Your task to perform on an android device: turn off picture-in-picture Image 0: 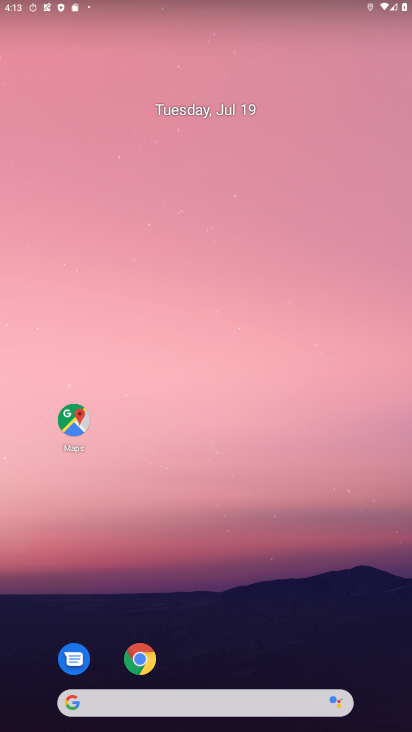
Step 0: drag from (233, 547) to (290, 8)
Your task to perform on an android device: turn off picture-in-picture Image 1: 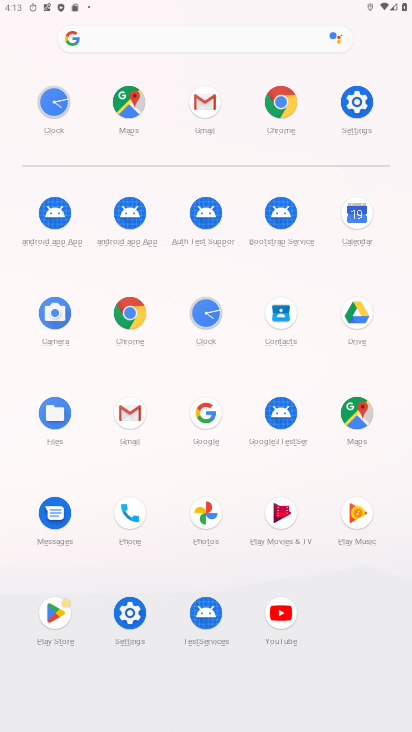
Step 1: click (284, 106)
Your task to perform on an android device: turn off picture-in-picture Image 2: 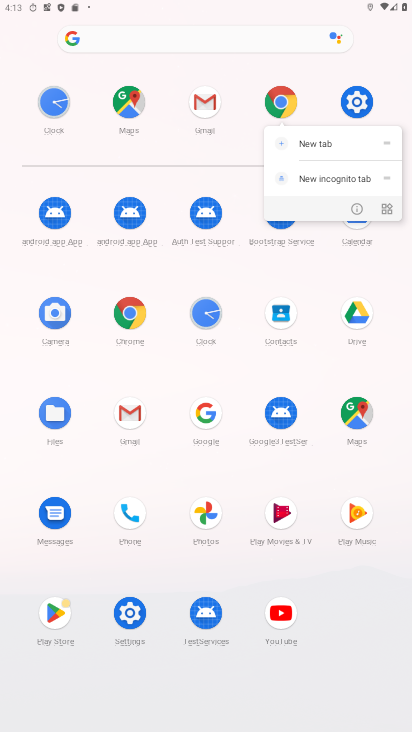
Step 2: click (356, 210)
Your task to perform on an android device: turn off picture-in-picture Image 3: 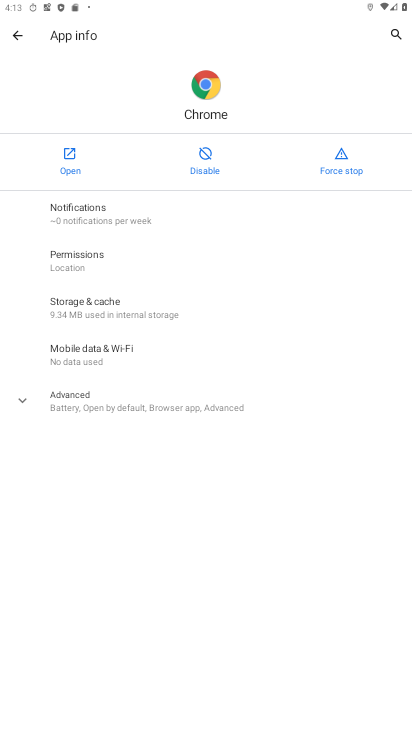
Step 3: click (125, 391)
Your task to perform on an android device: turn off picture-in-picture Image 4: 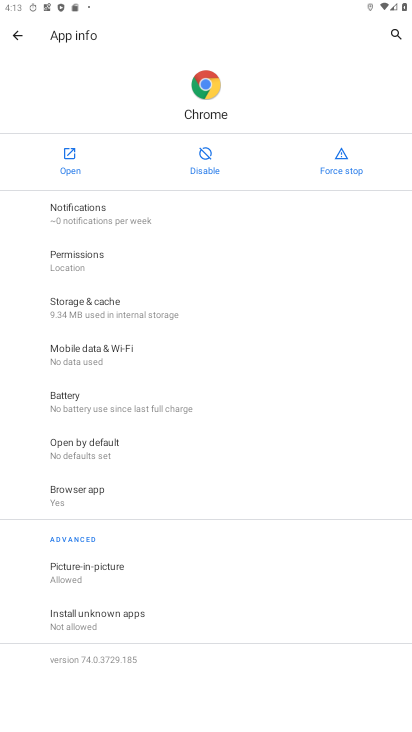
Step 4: drag from (161, 561) to (302, 68)
Your task to perform on an android device: turn off picture-in-picture Image 5: 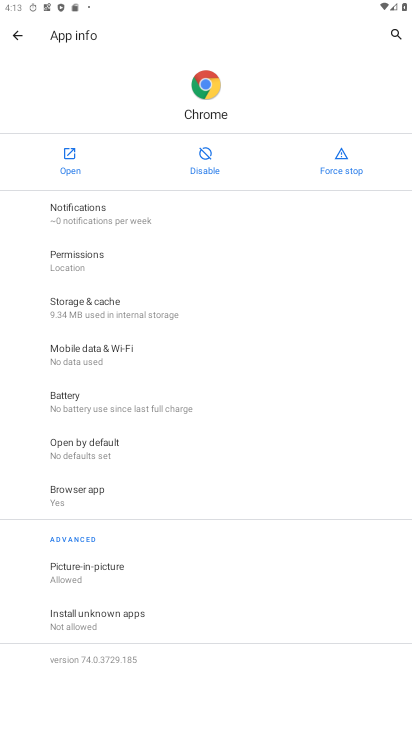
Step 5: click (67, 572)
Your task to perform on an android device: turn off picture-in-picture Image 6: 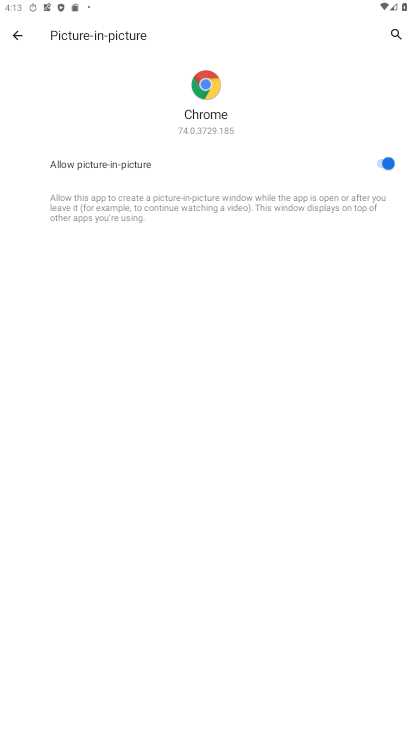
Step 6: click (380, 169)
Your task to perform on an android device: turn off picture-in-picture Image 7: 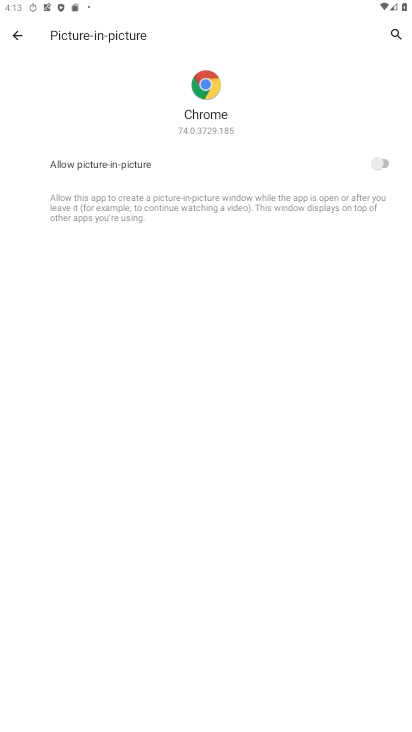
Step 7: task complete